Your task to perform on an android device: Search for Italian restaurants on Maps Image 0: 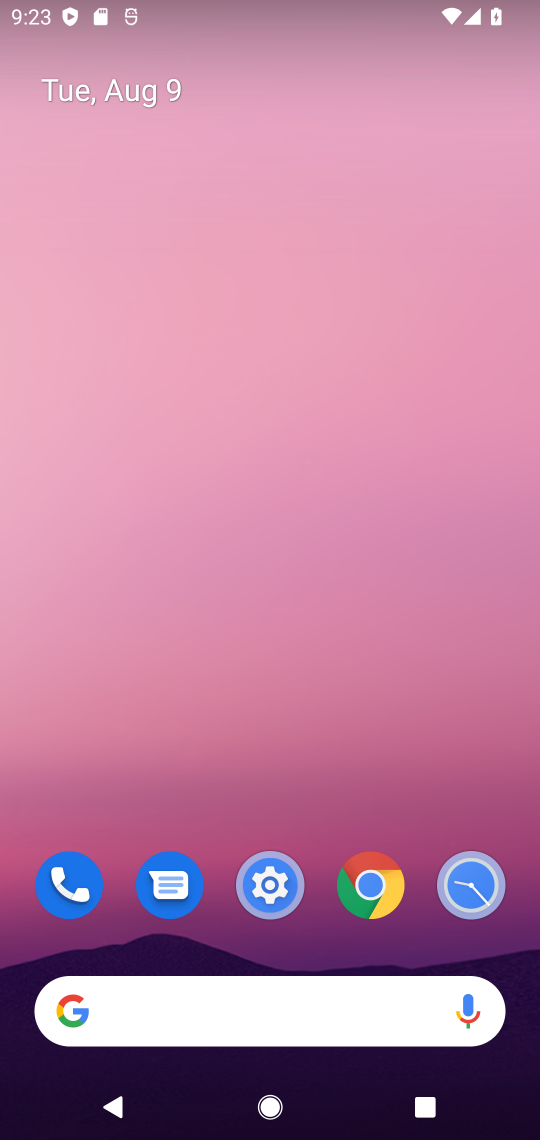
Step 0: drag from (282, 784) to (305, 15)
Your task to perform on an android device: Search for Italian restaurants on Maps Image 1: 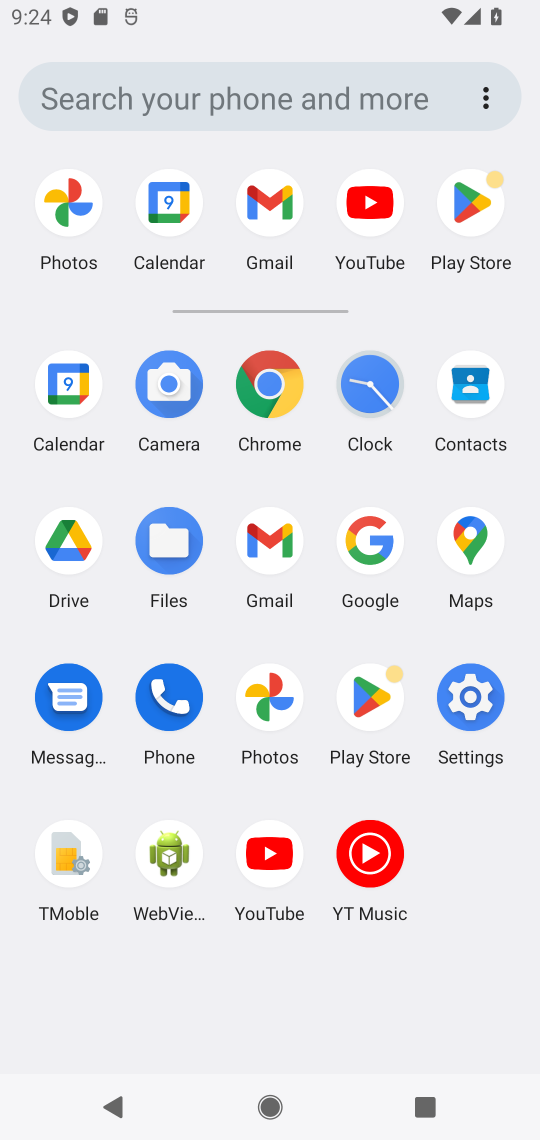
Step 1: click (484, 532)
Your task to perform on an android device: Search for Italian restaurants on Maps Image 2: 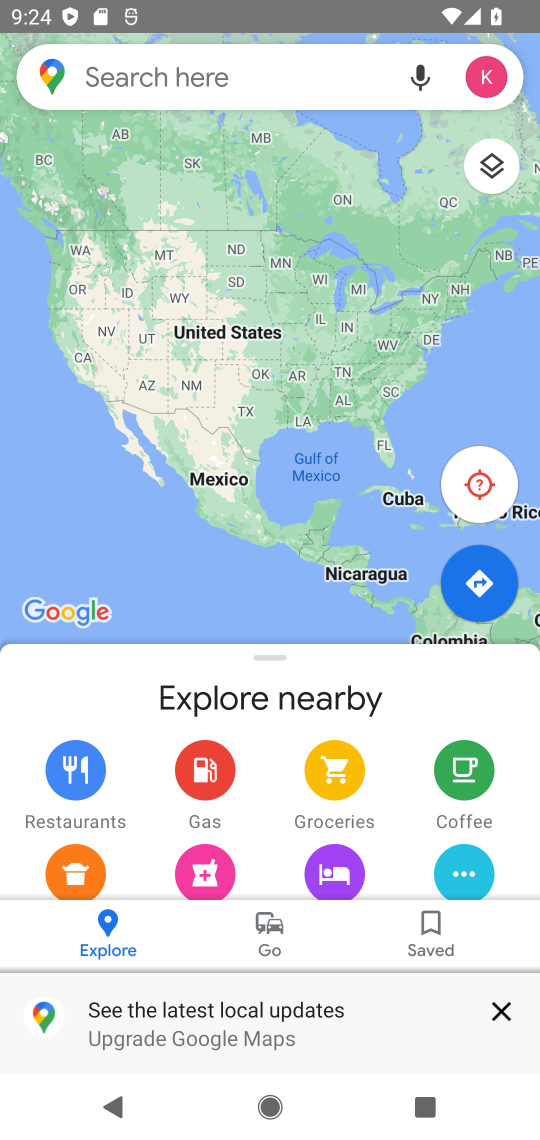
Step 2: click (172, 72)
Your task to perform on an android device: Search for Italian restaurants on Maps Image 3: 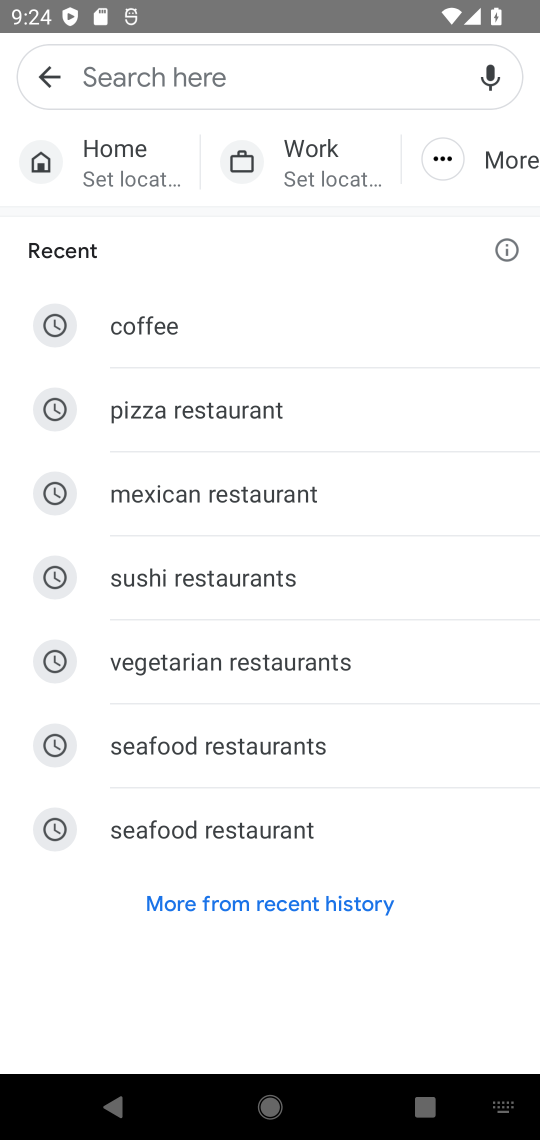
Step 3: type "Italian restaurants"
Your task to perform on an android device: Search for Italian restaurants on Maps Image 4: 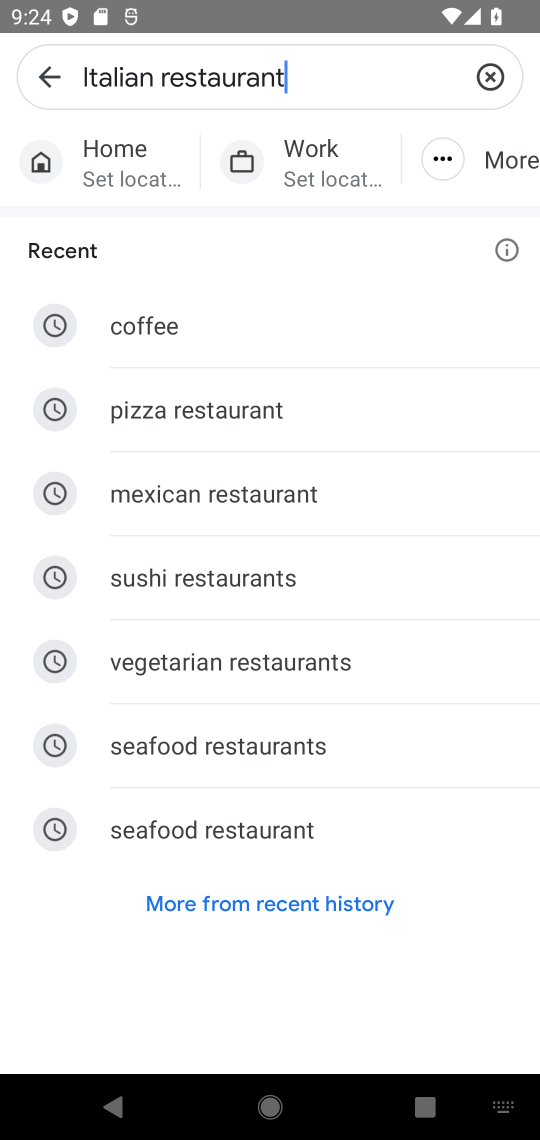
Step 4: type ""
Your task to perform on an android device: Search for Italian restaurants on Maps Image 5: 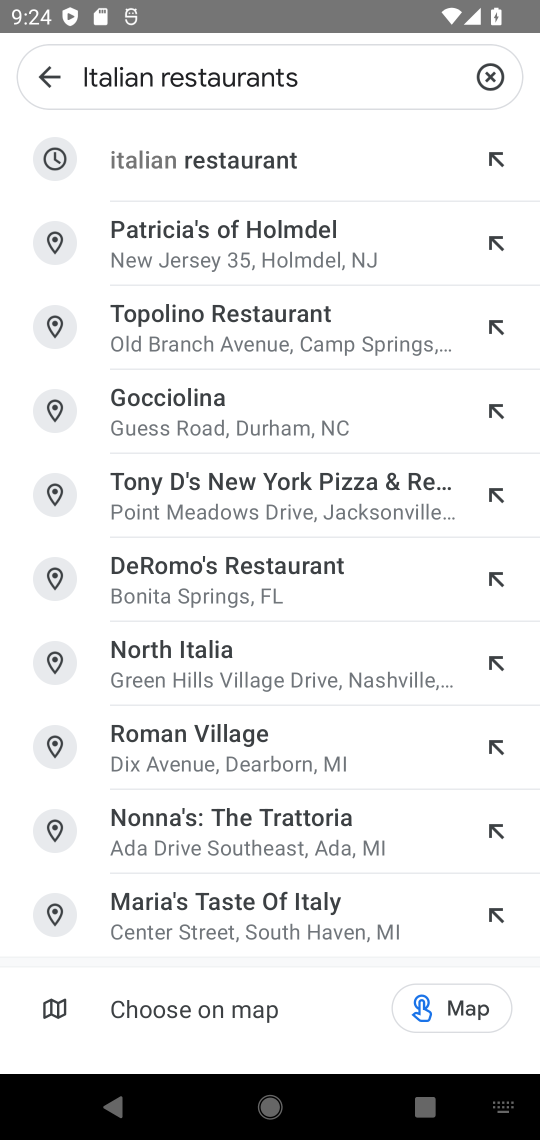
Step 5: click (213, 176)
Your task to perform on an android device: Search for Italian restaurants on Maps Image 6: 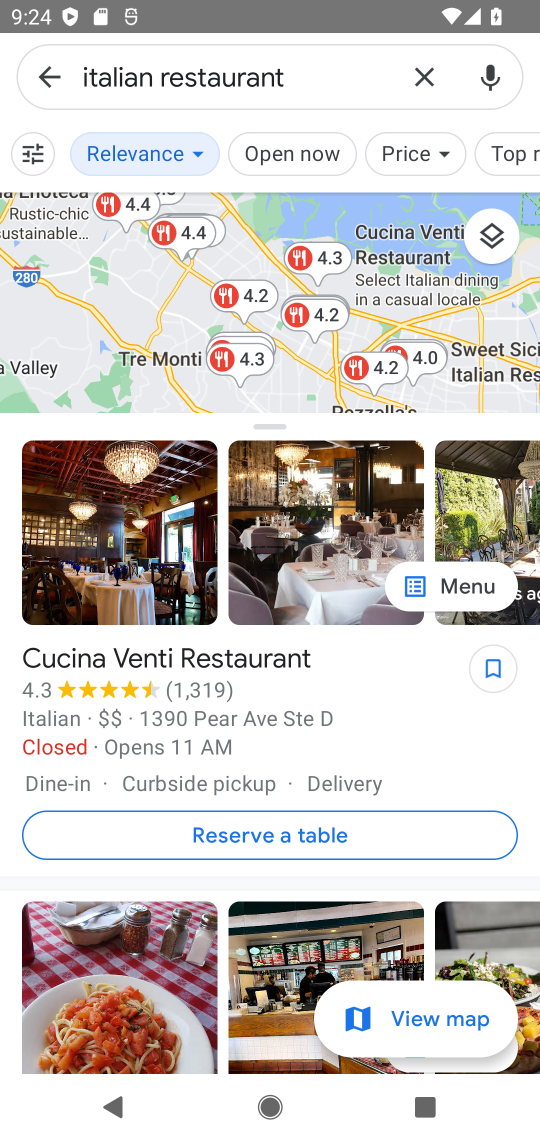
Step 6: task complete